Your task to perform on an android device: check the backup settings in the google photos Image 0: 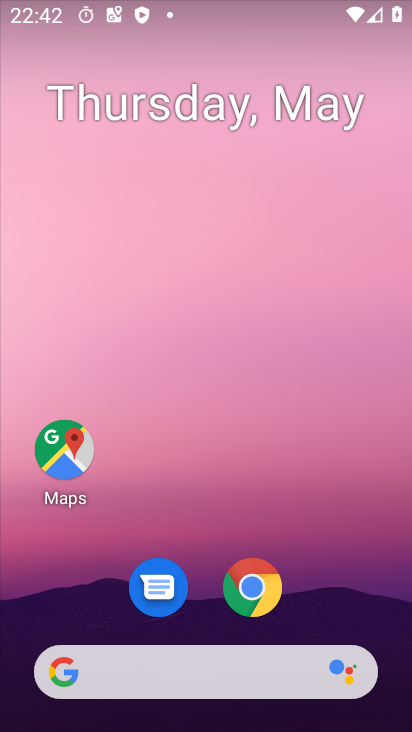
Step 0: drag from (371, 616) to (328, 28)
Your task to perform on an android device: check the backup settings in the google photos Image 1: 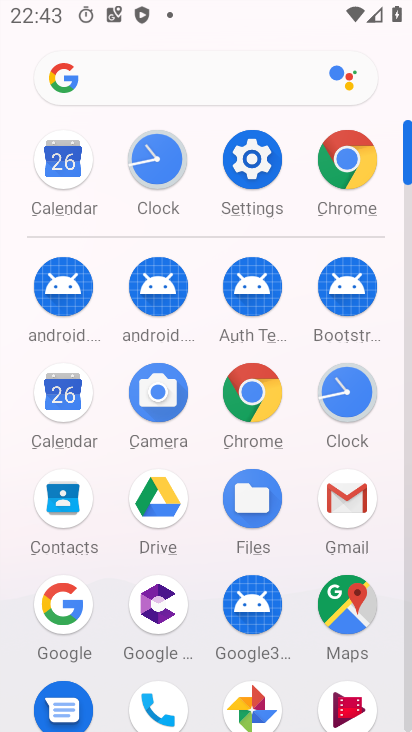
Step 1: click (248, 703)
Your task to perform on an android device: check the backup settings in the google photos Image 2: 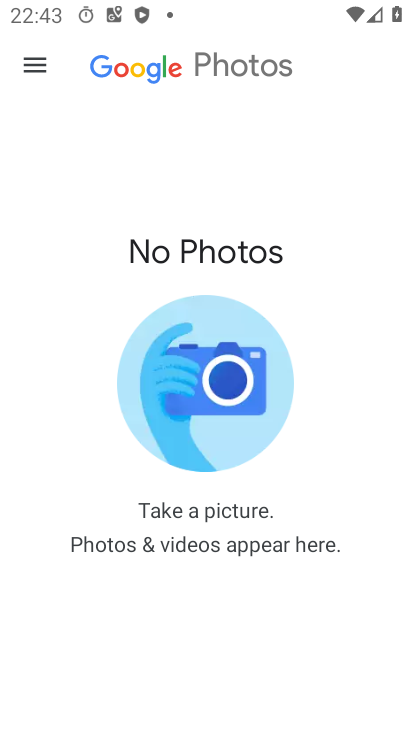
Step 2: click (31, 69)
Your task to perform on an android device: check the backup settings in the google photos Image 3: 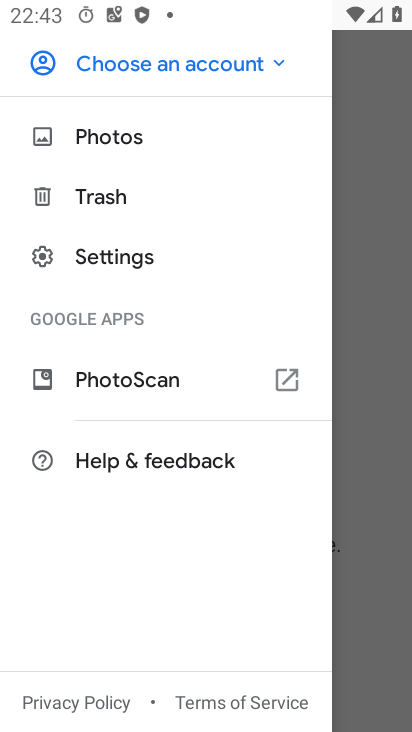
Step 3: click (62, 257)
Your task to perform on an android device: check the backup settings in the google photos Image 4: 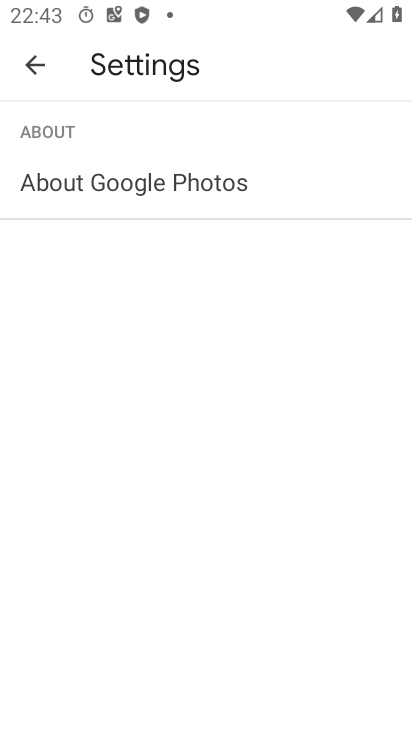
Step 4: click (83, 188)
Your task to perform on an android device: check the backup settings in the google photos Image 5: 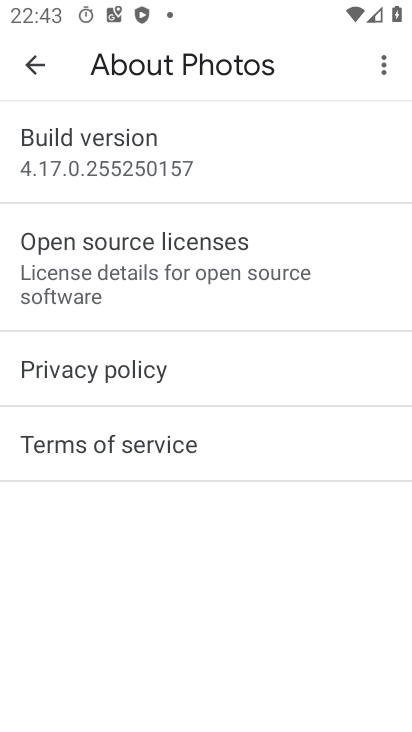
Step 5: click (381, 61)
Your task to perform on an android device: check the backup settings in the google photos Image 6: 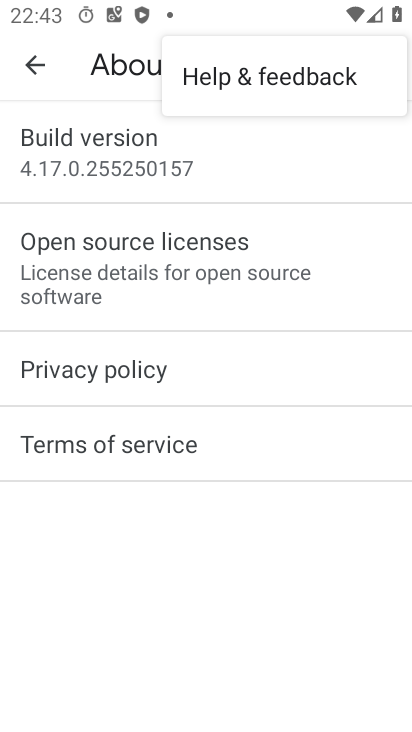
Step 6: click (35, 70)
Your task to perform on an android device: check the backup settings in the google photos Image 7: 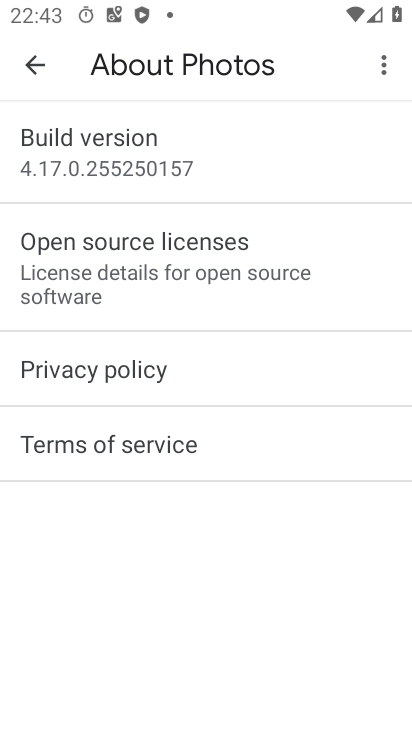
Step 7: click (35, 70)
Your task to perform on an android device: check the backup settings in the google photos Image 8: 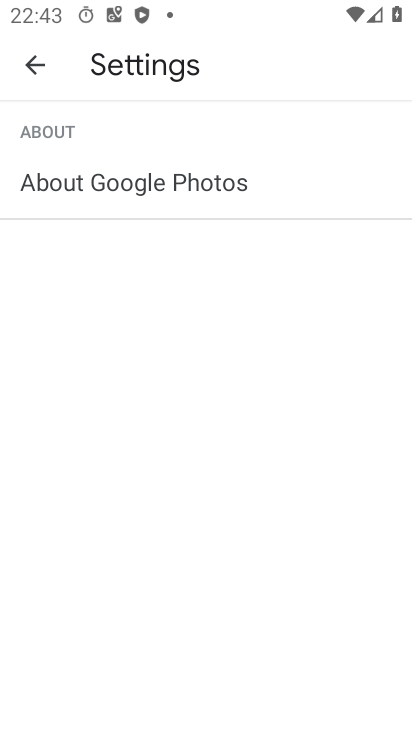
Step 8: click (35, 70)
Your task to perform on an android device: check the backup settings in the google photos Image 9: 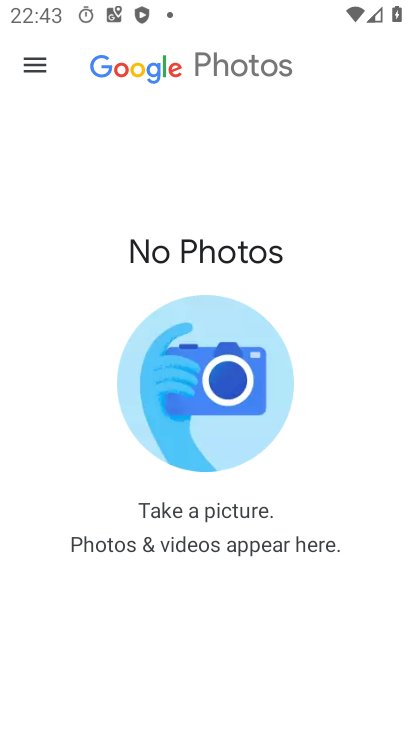
Step 9: click (190, 419)
Your task to perform on an android device: check the backup settings in the google photos Image 10: 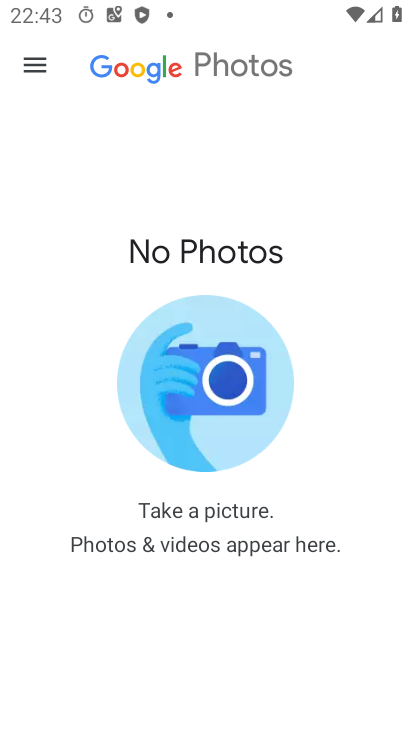
Step 10: drag from (190, 419) to (173, 84)
Your task to perform on an android device: check the backup settings in the google photos Image 11: 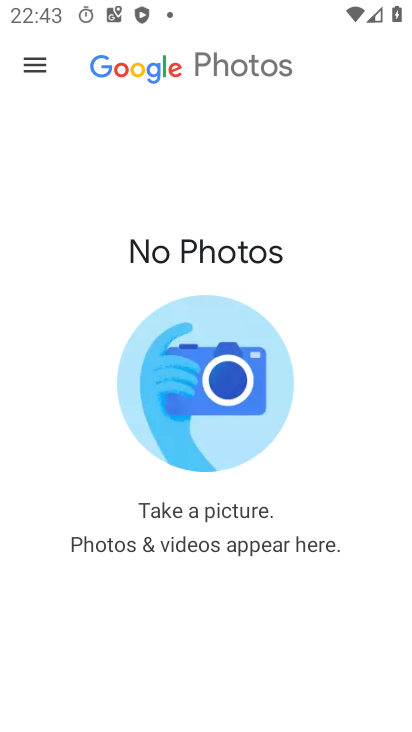
Step 11: click (37, 71)
Your task to perform on an android device: check the backup settings in the google photos Image 12: 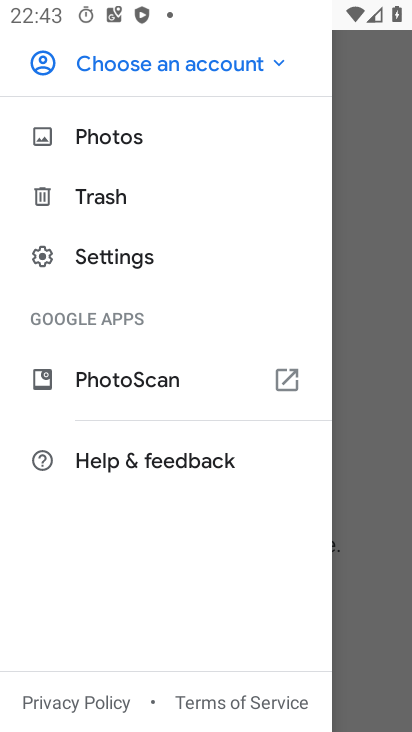
Step 12: click (93, 134)
Your task to perform on an android device: check the backup settings in the google photos Image 13: 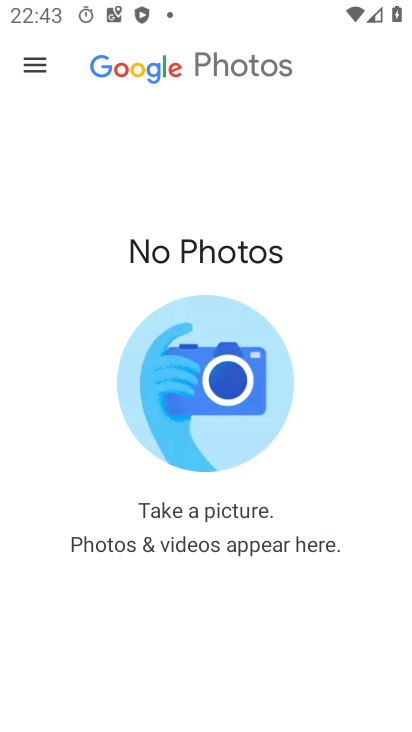
Step 13: task complete